Your task to perform on an android device: Show the shopping cart on newegg. Add "usb-c" to the cart on newegg Image 0: 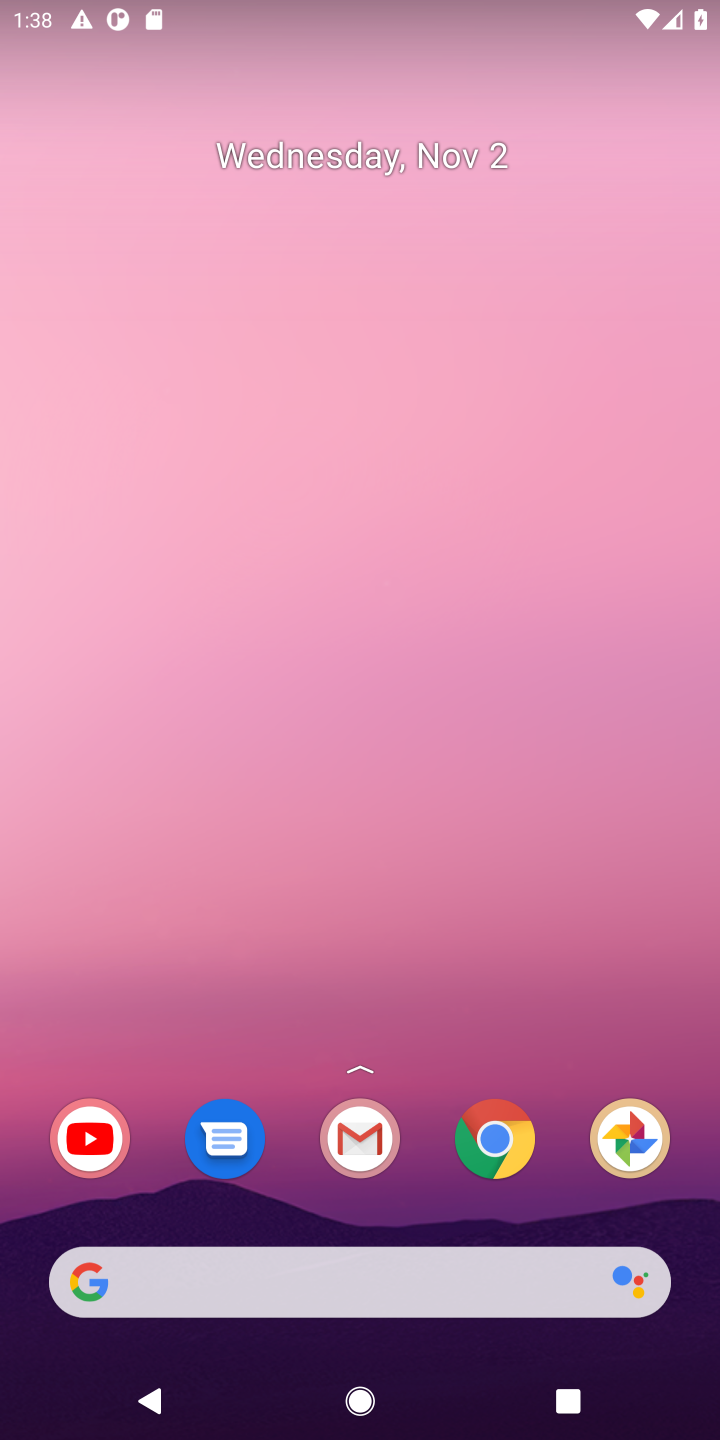
Step 0: press home button
Your task to perform on an android device: Show the shopping cart on newegg. Add "usb-c" to the cart on newegg Image 1: 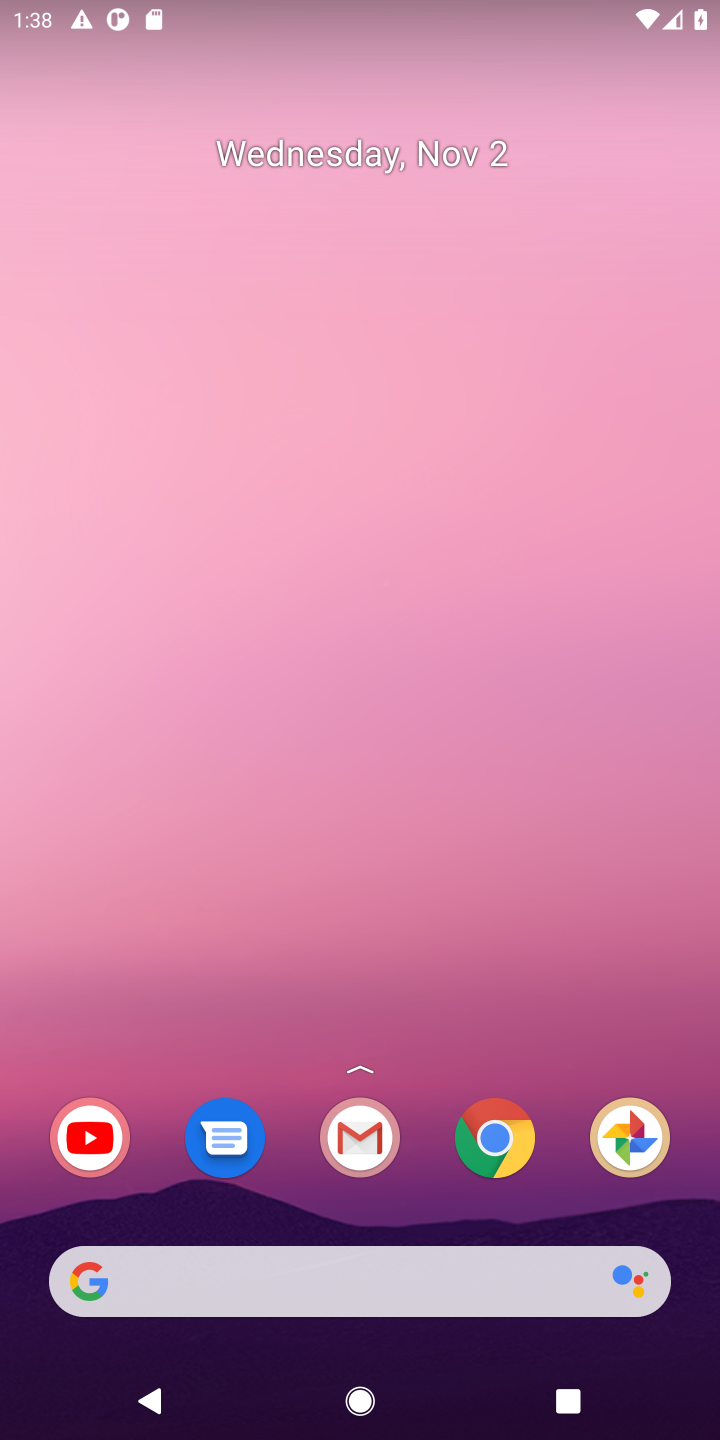
Step 1: click (153, 1275)
Your task to perform on an android device: Show the shopping cart on newegg. Add "usb-c" to the cart on newegg Image 2: 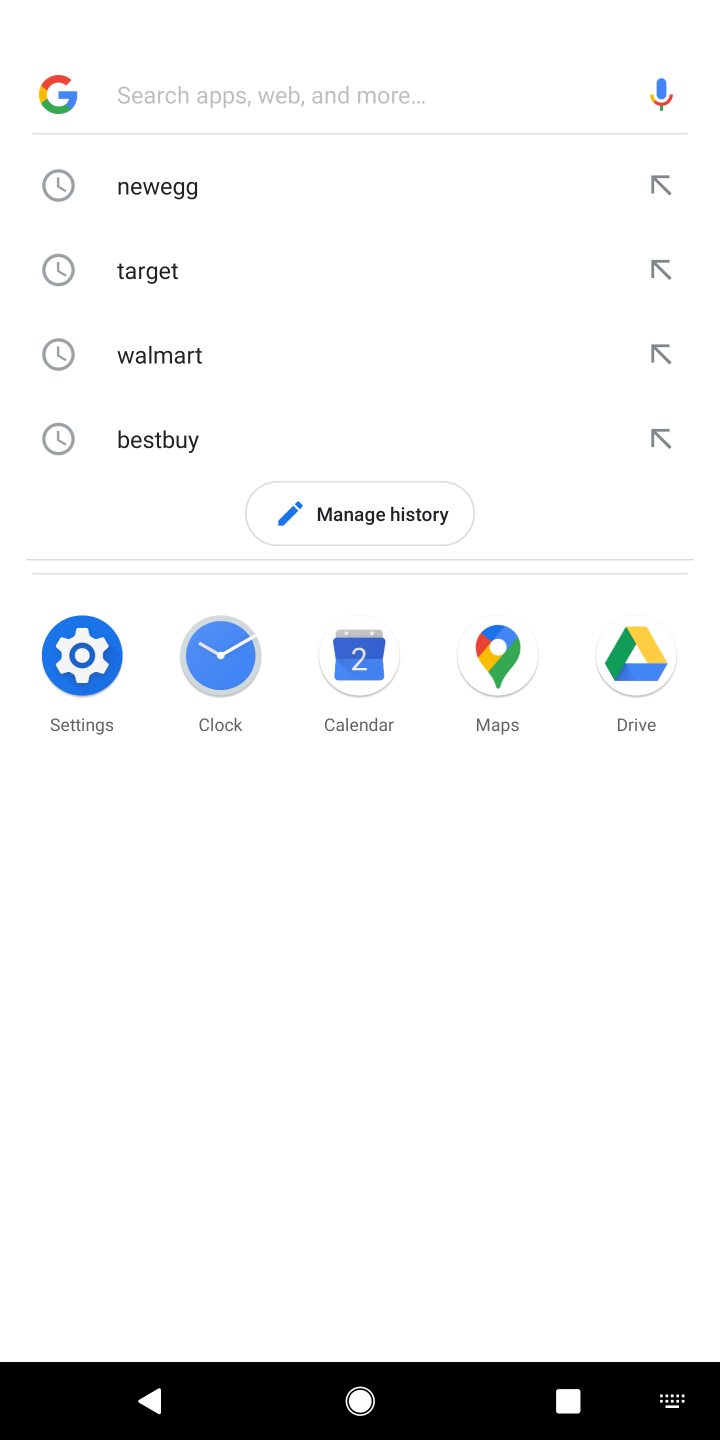
Step 2: type "newegg"
Your task to perform on an android device: Show the shopping cart on newegg. Add "usb-c" to the cart on newegg Image 3: 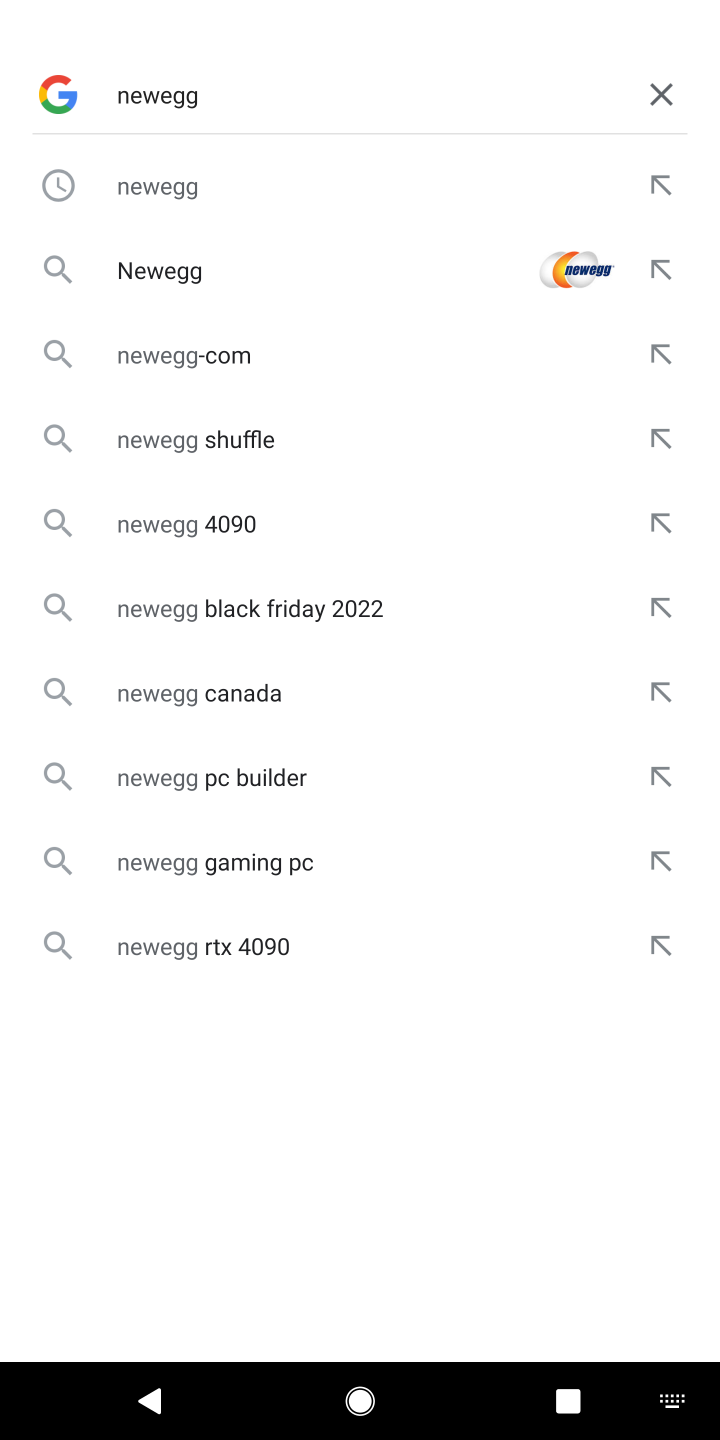
Step 3: press enter
Your task to perform on an android device: Show the shopping cart on newegg. Add "usb-c" to the cart on newegg Image 4: 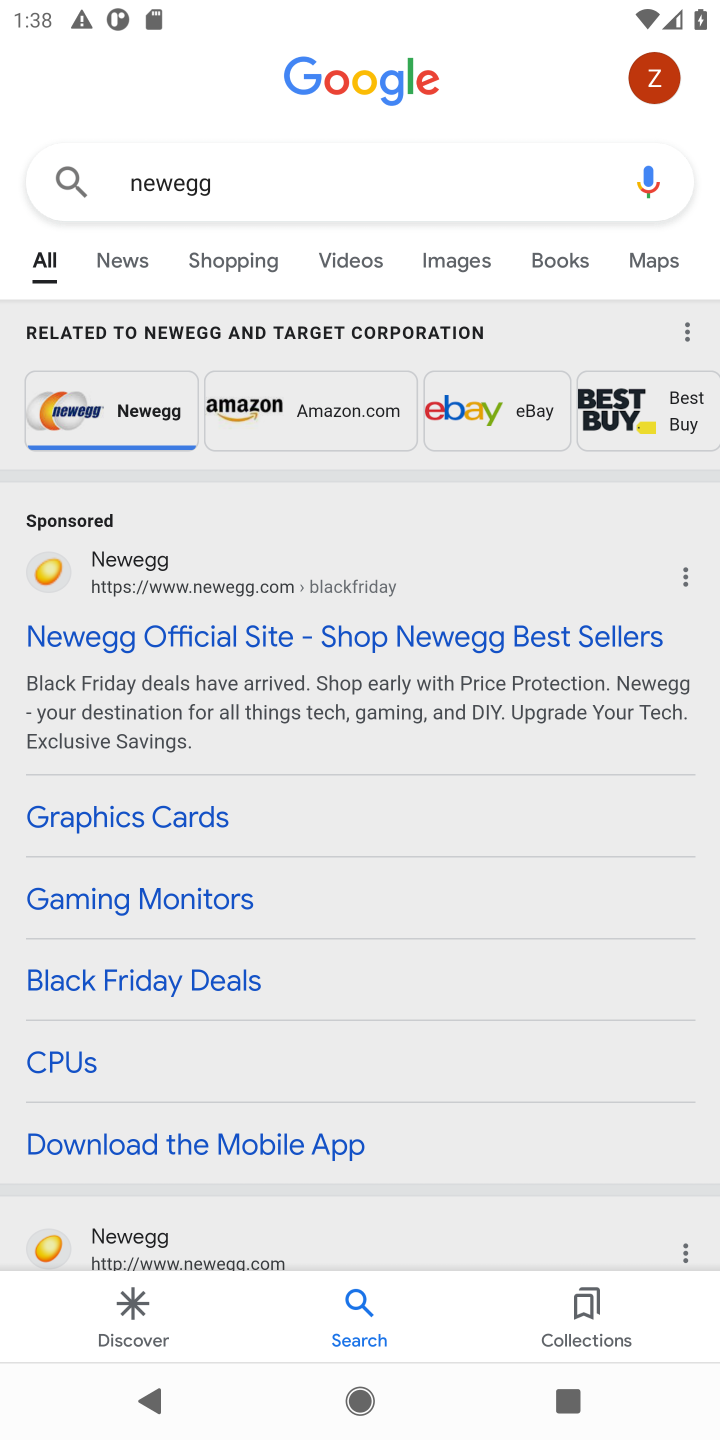
Step 4: click (216, 632)
Your task to perform on an android device: Show the shopping cart on newegg. Add "usb-c" to the cart on newegg Image 5: 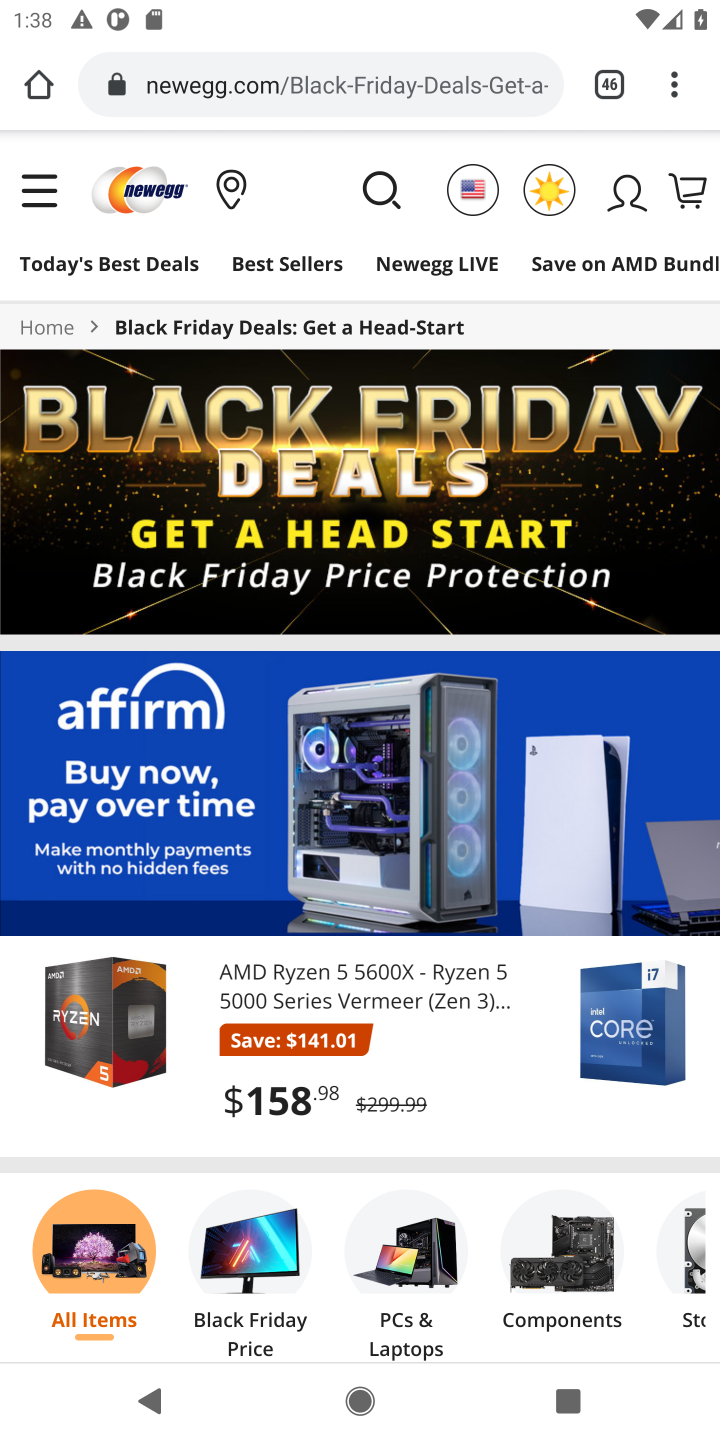
Step 5: click (375, 191)
Your task to perform on an android device: Show the shopping cart on newegg. Add "usb-c" to the cart on newegg Image 6: 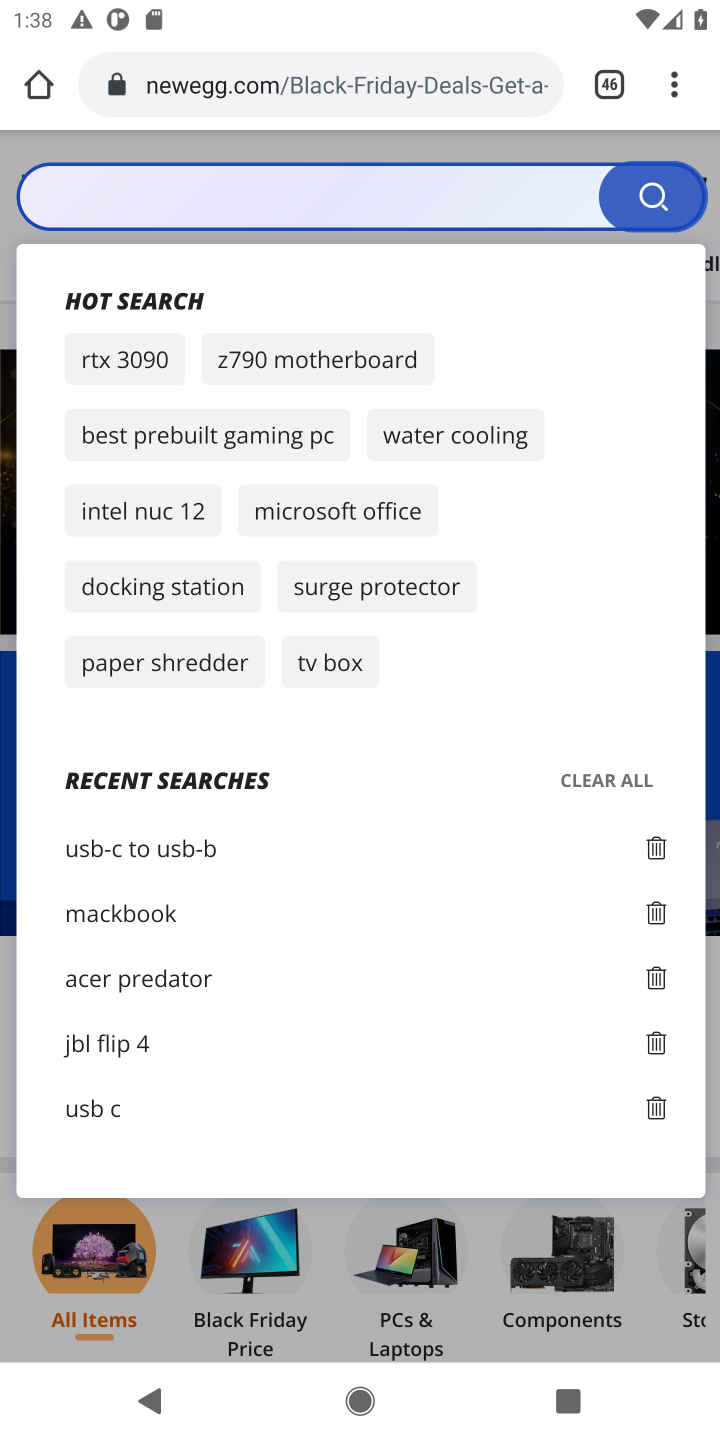
Step 6: click (164, 191)
Your task to perform on an android device: Show the shopping cart on newegg. Add "usb-c" to the cart on newegg Image 7: 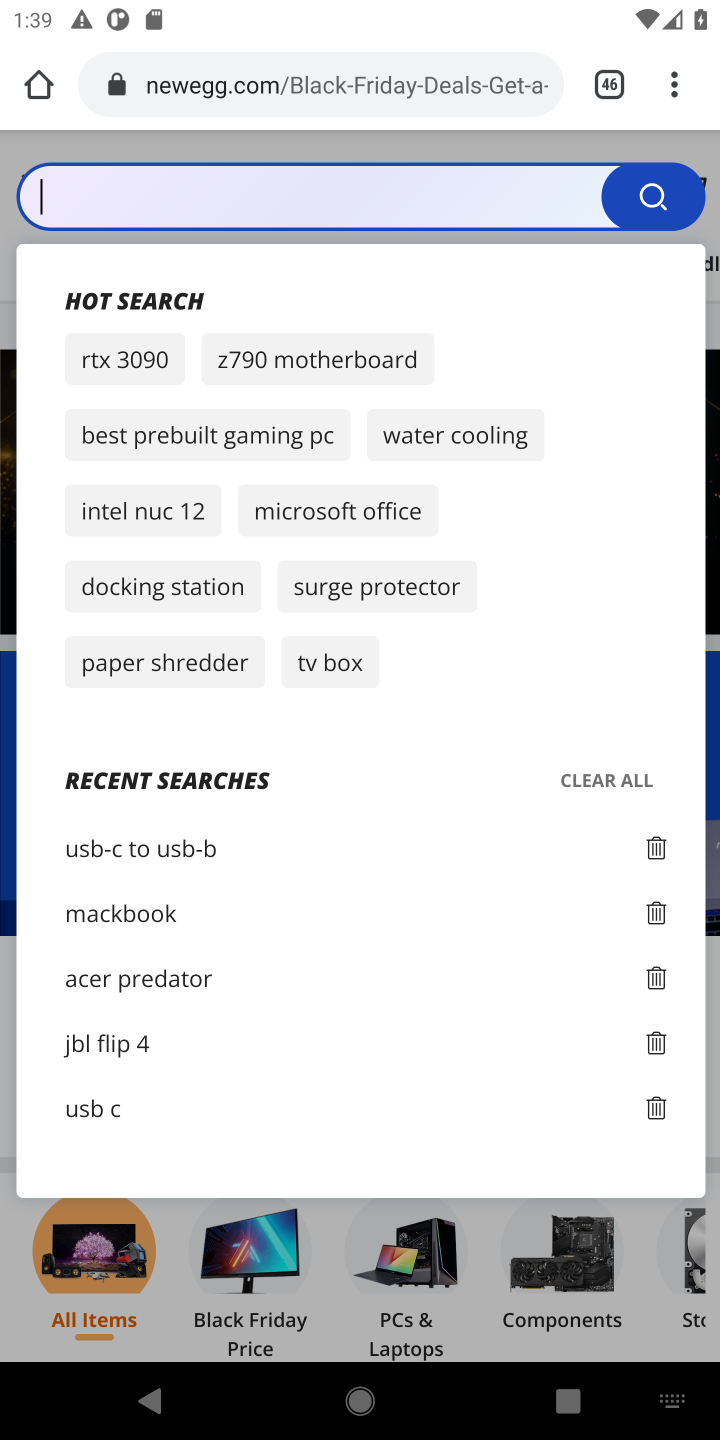
Step 7: press enter
Your task to perform on an android device: Show the shopping cart on newegg. Add "usb-c" to the cart on newegg Image 8: 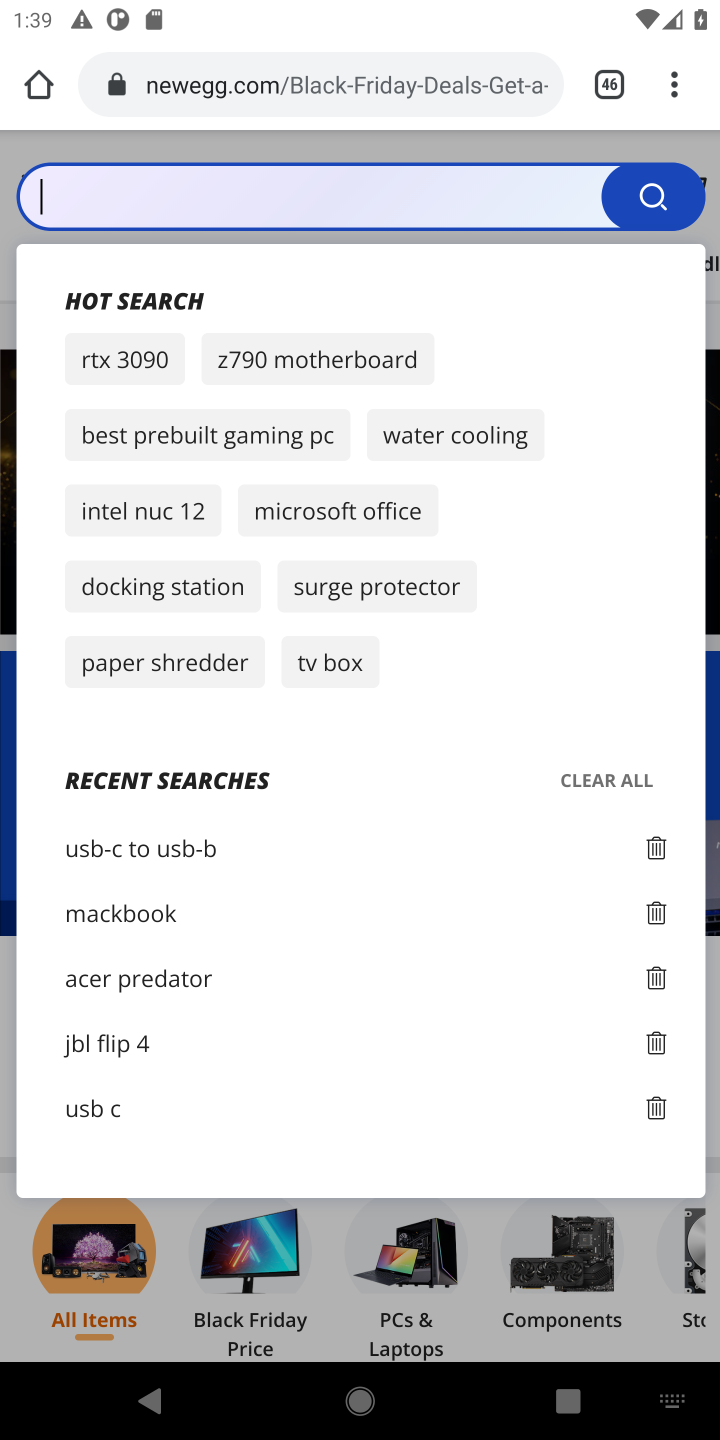
Step 8: type "usb c"
Your task to perform on an android device: Show the shopping cart on newegg. Add "usb-c" to the cart on newegg Image 9: 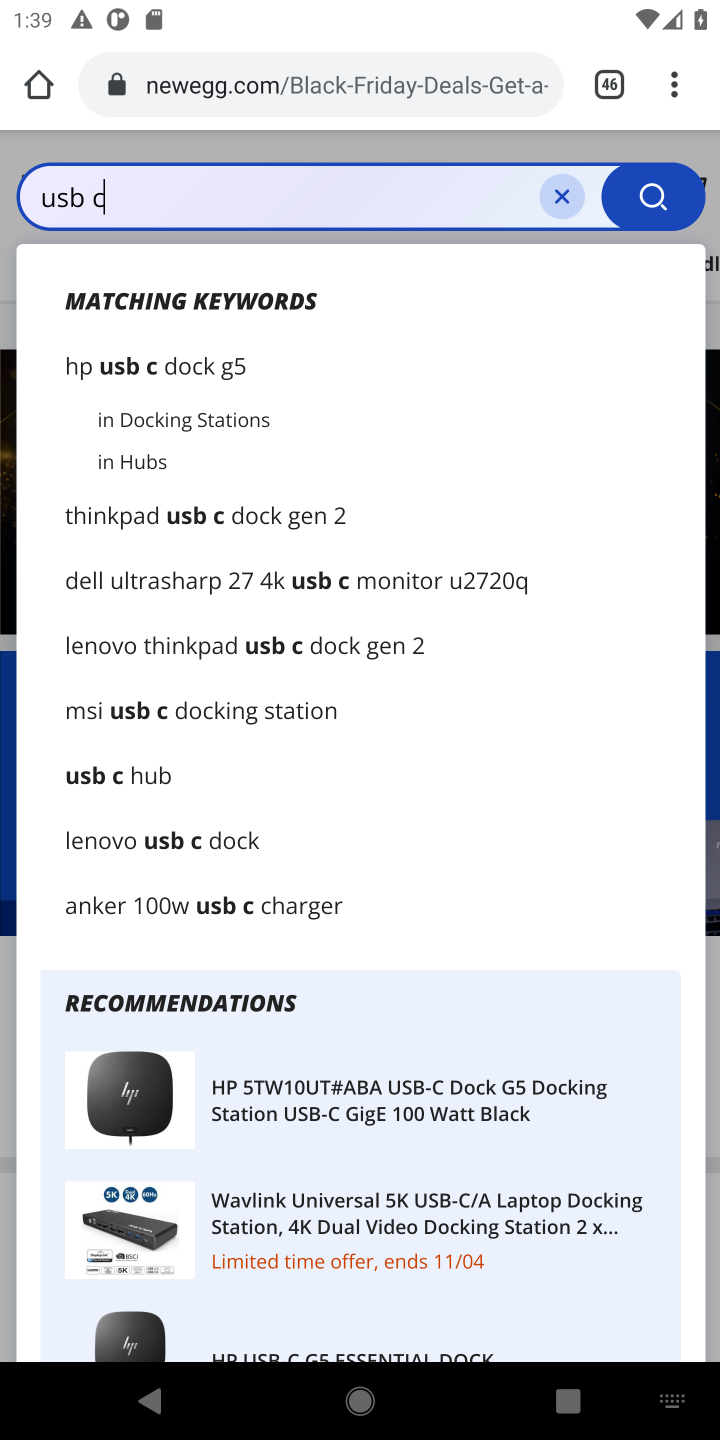
Step 9: click (653, 207)
Your task to perform on an android device: Show the shopping cart on newegg. Add "usb-c" to the cart on newegg Image 10: 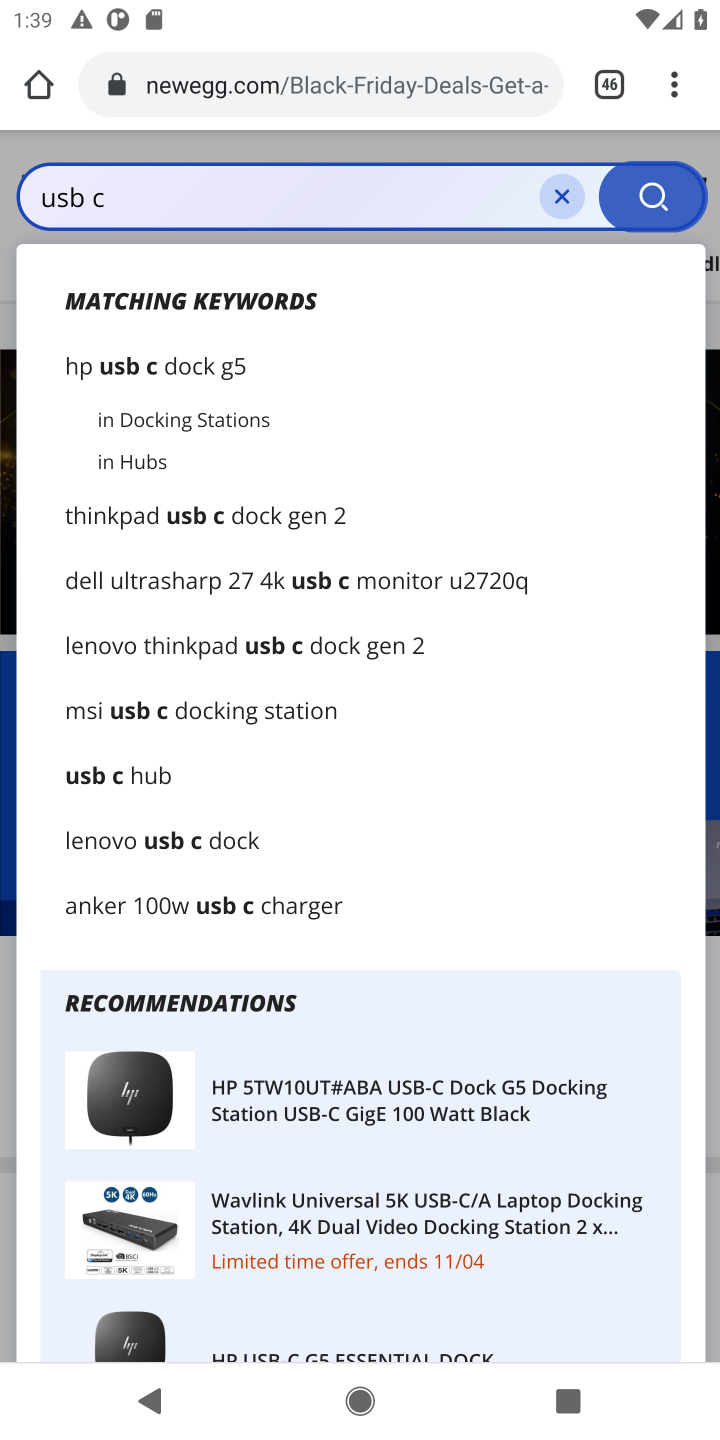
Step 10: click (657, 196)
Your task to perform on an android device: Show the shopping cart on newegg. Add "usb-c" to the cart on newegg Image 11: 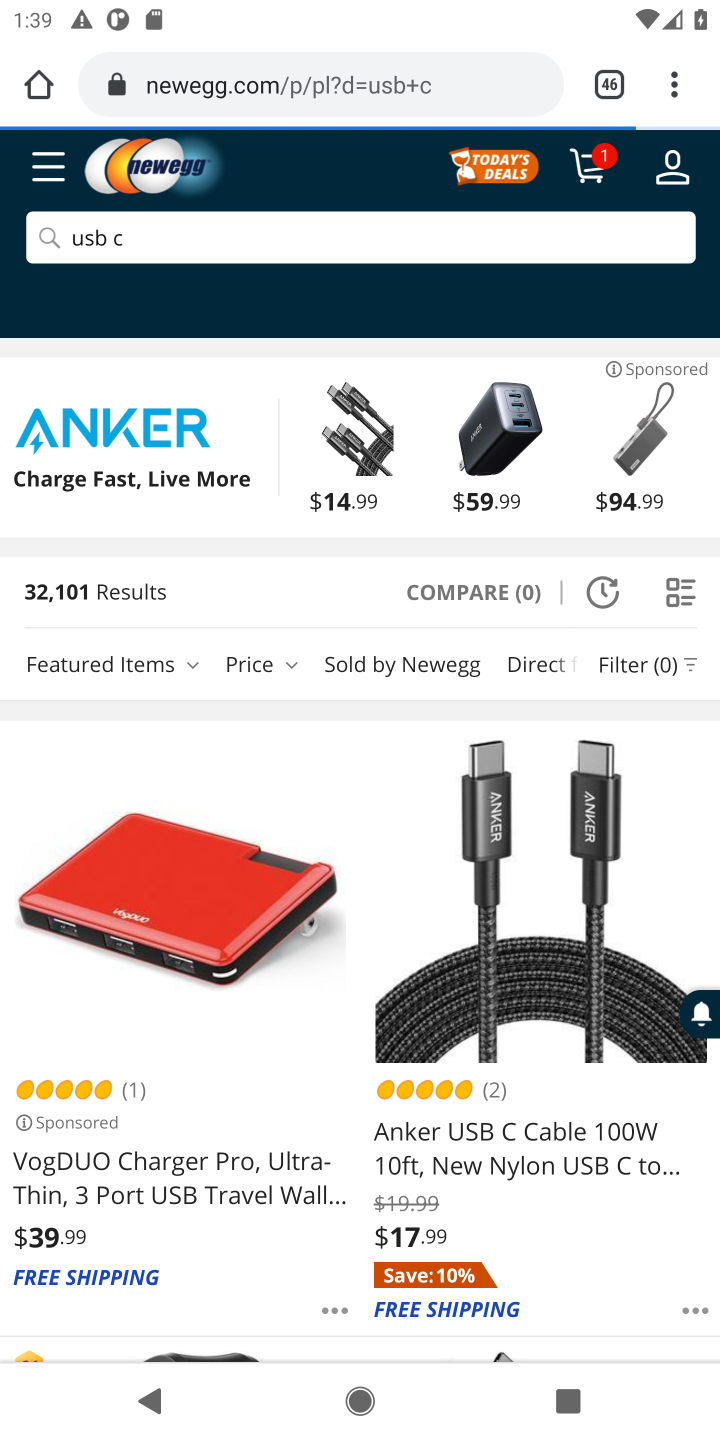
Step 11: drag from (528, 1208) to (569, 865)
Your task to perform on an android device: Show the shopping cart on newegg. Add "usb-c" to the cart on newegg Image 12: 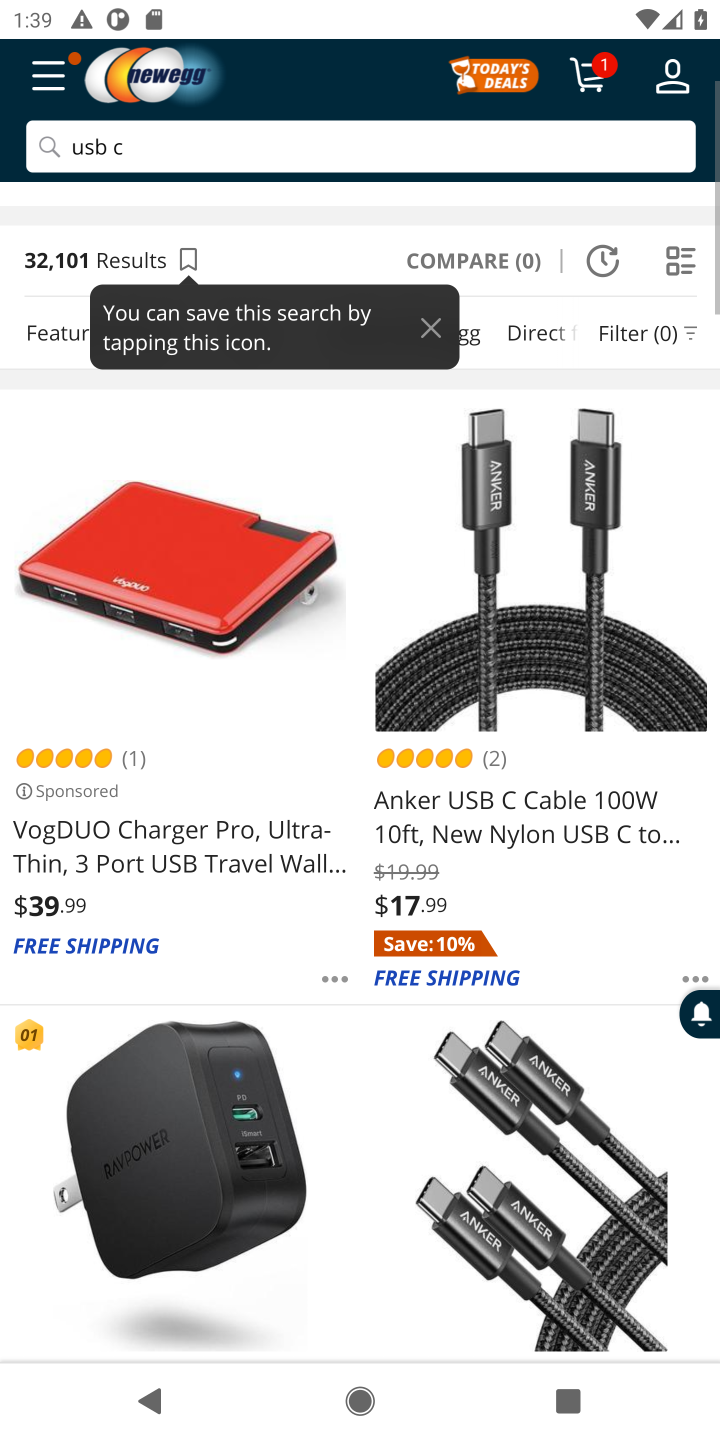
Step 12: click (558, 806)
Your task to perform on an android device: Show the shopping cart on newegg. Add "usb-c" to the cart on newegg Image 13: 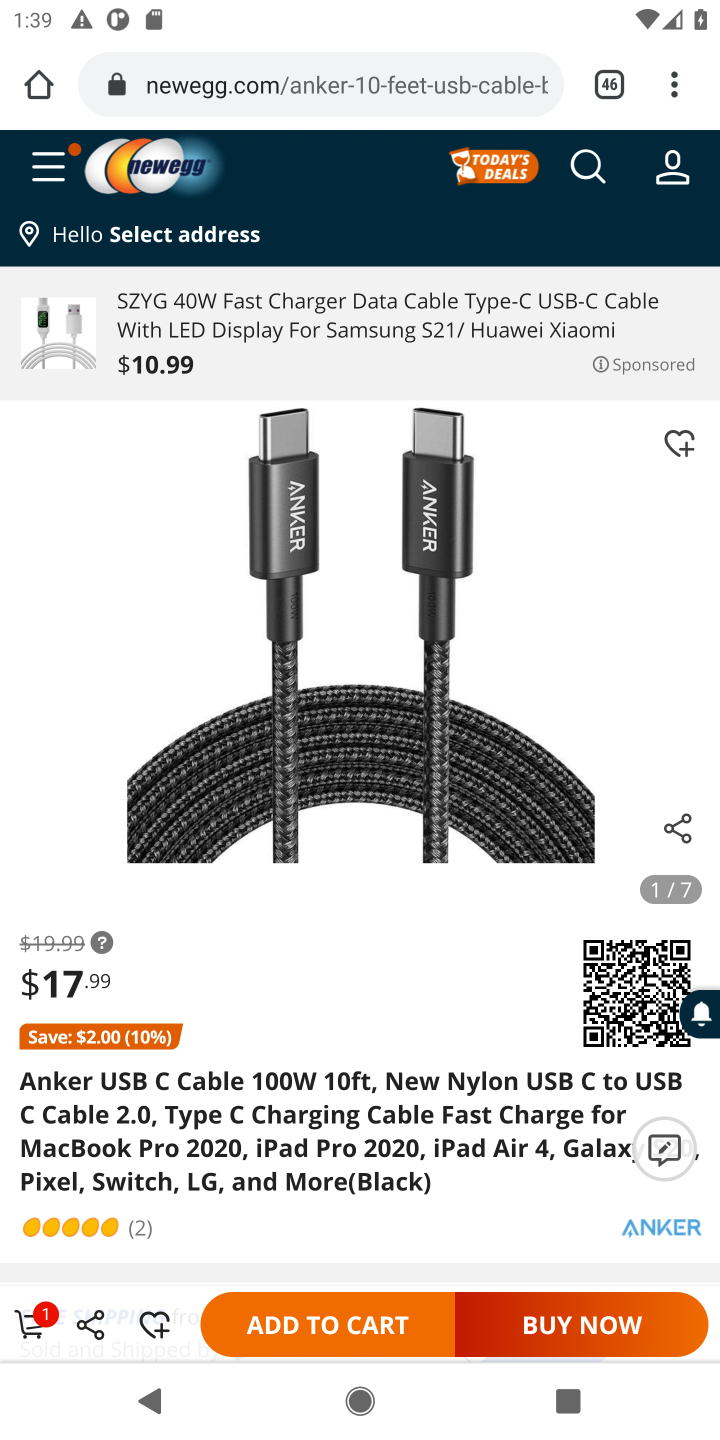
Step 13: click (311, 1331)
Your task to perform on an android device: Show the shopping cart on newegg. Add "usb-c" to the cart on newegg Image 14: 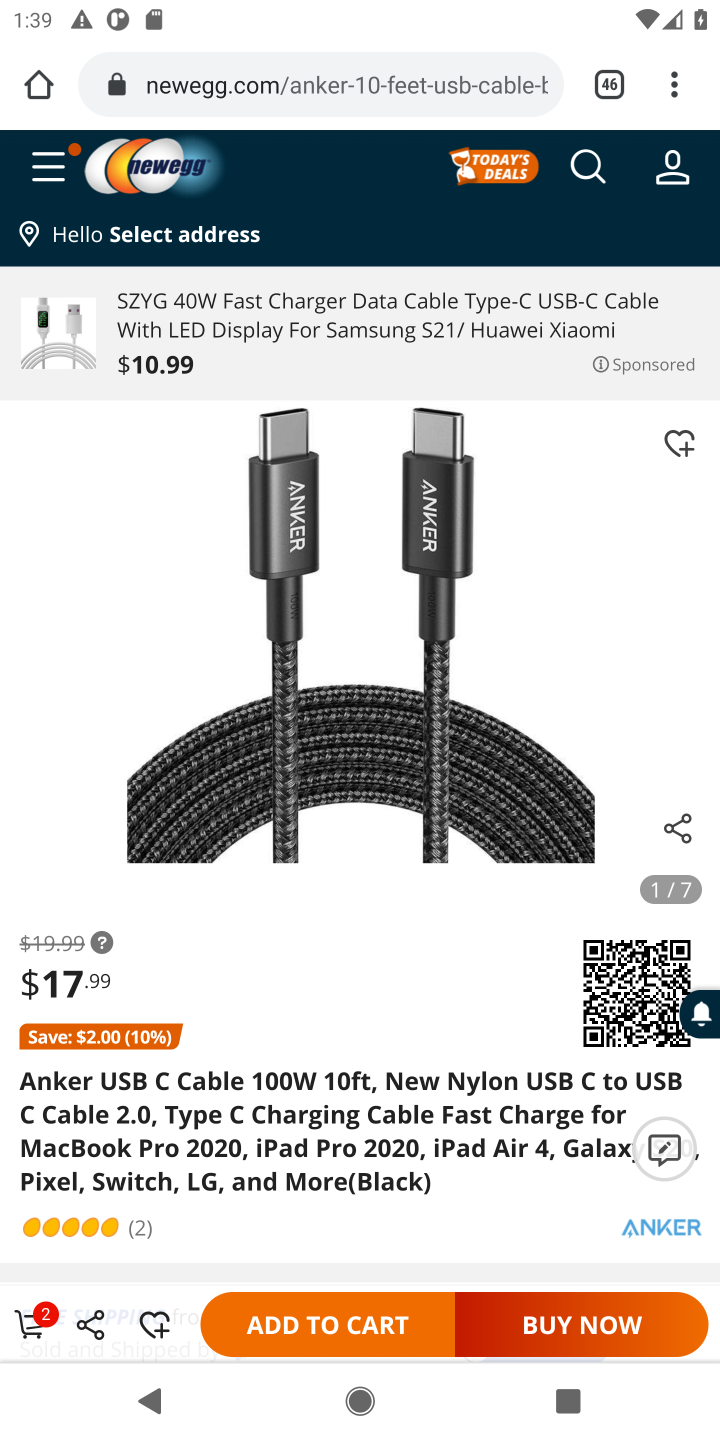
Step 14: task complete